Your task to perform on an android device: Open Amazon Image 0: 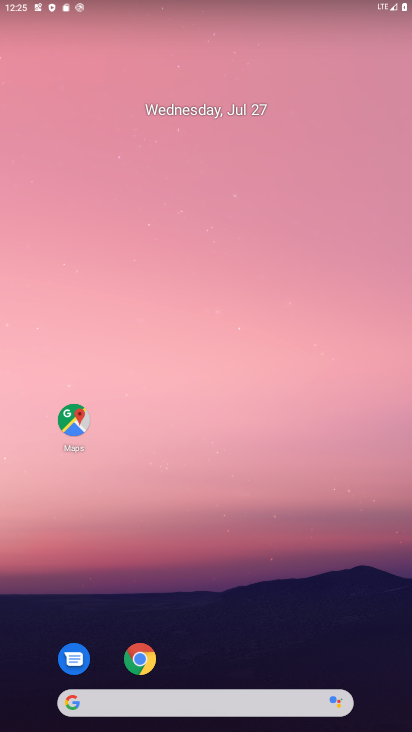
Step 0: drag from (260, 647) to (281, 437)
Your task to perform on an android device: Open Amazon Image 1: 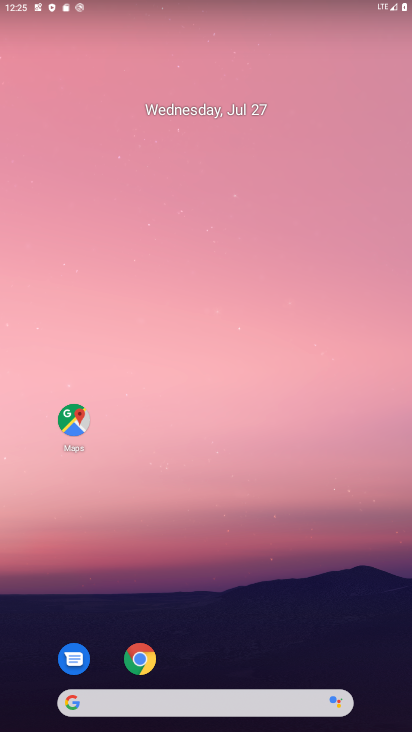
Step 1: drag from (287, 595) to (312, 104)
Your task to perform on an android device: Open Amazon Image 2: 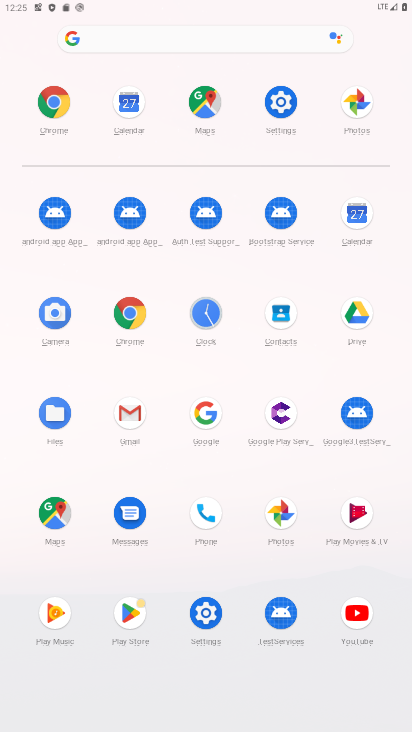
Step 2: click (136, 310)
Your task to perform on an android device: Open Amazon Image 3: 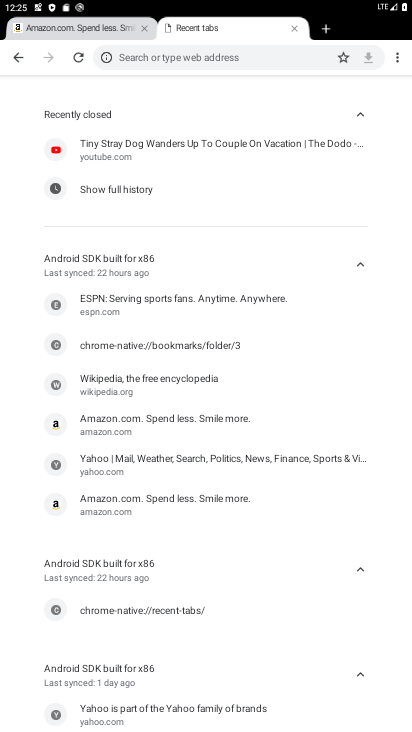
Step 3: click (122, 25)
Your task to perform on an android device: Open Amazon Image 4: 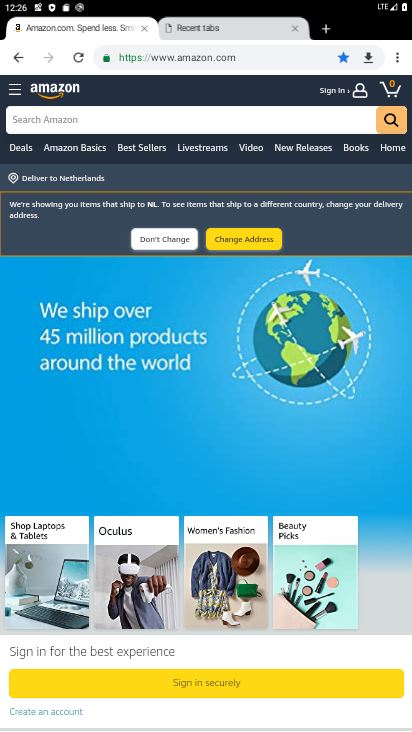
Step 4: task complete